Your task to perform on an android device: Go to Yahoo.com Image 0: 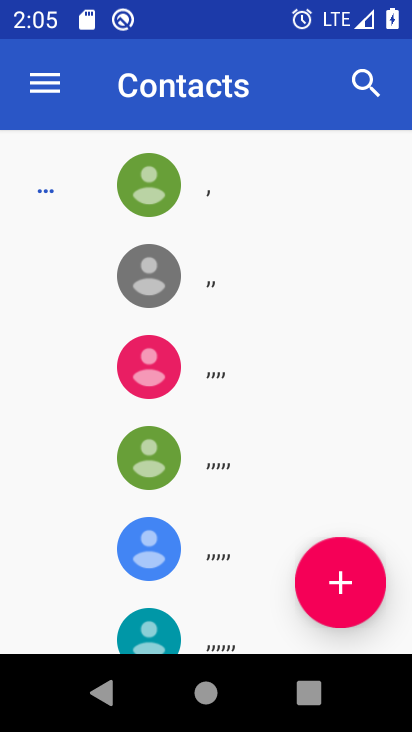
Step 0: press home button
Your task to perform on an android device: Go to Yahoo.com Image 1: 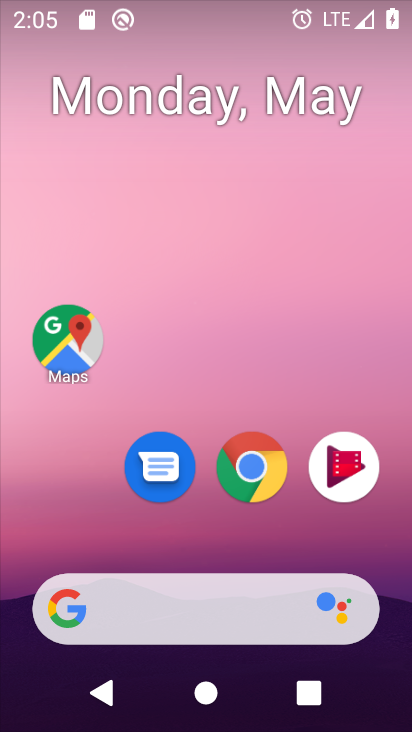
Step 1: drag from (218, 563) to (218, 256)
Your task to perform on an android device: Go to Yahoo.com Image 2: 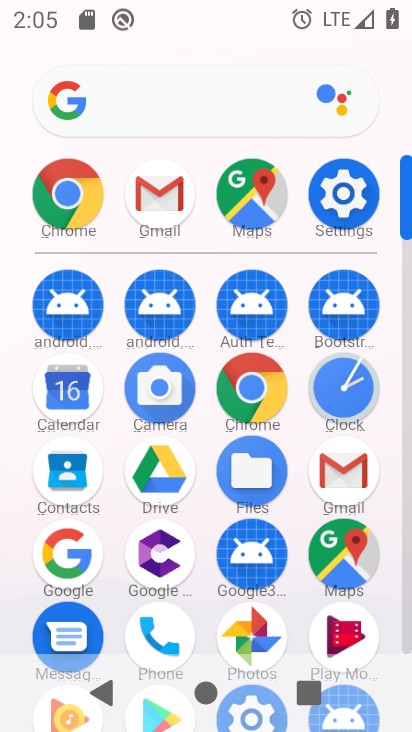
Step 2: click (66, 201)
Your task to perform on an android device: Go to Yahoo.com Image 3: 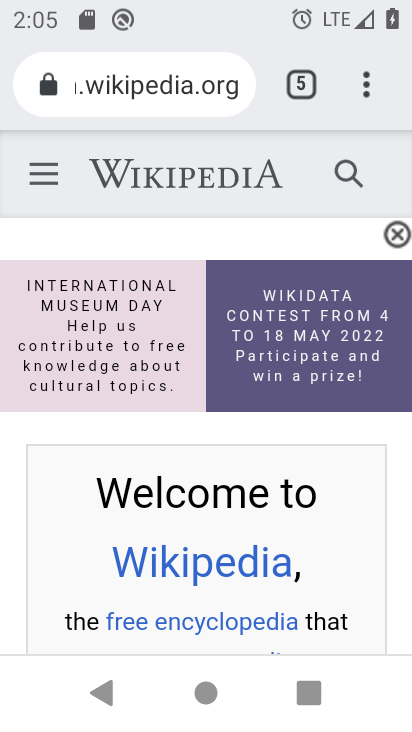
Step 3: click (350, 85)
Your task to perform on an android device: Go to Yahoo.com Image 4: 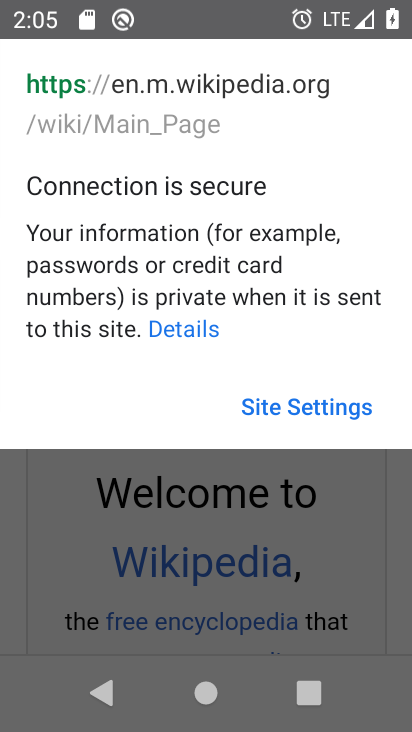
Step 4: press back button
Your task to perform on an android device: Go to Yahoo.com Image 5: 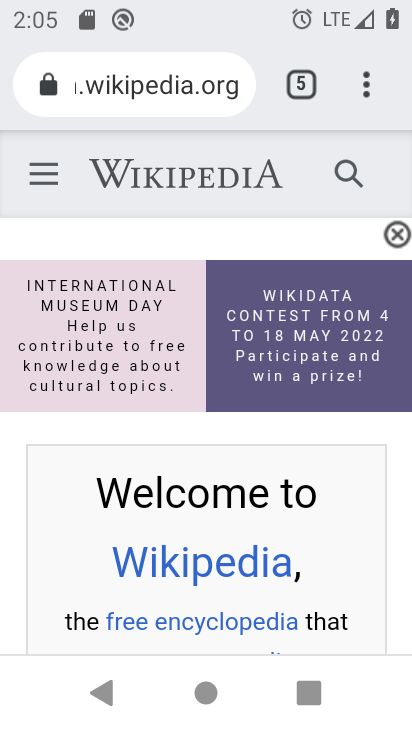
Step 5: click (371, 81)
Your task to perform on an android device: Go to Yahoo.com Image 6: 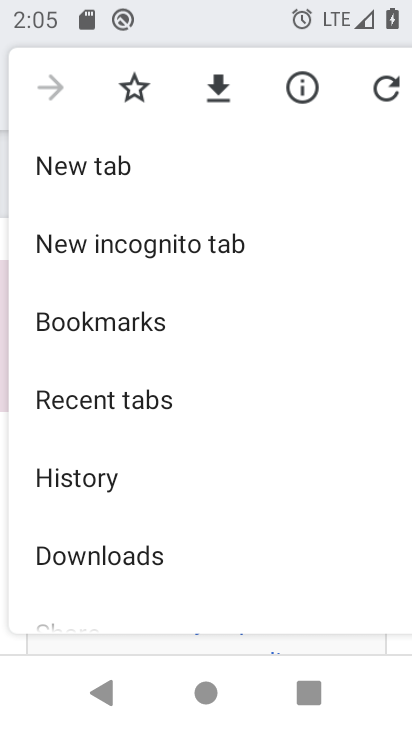
Step 6: click (120, 155)
Your task to perform on an android device: Go to Yahoo.com Image 7: 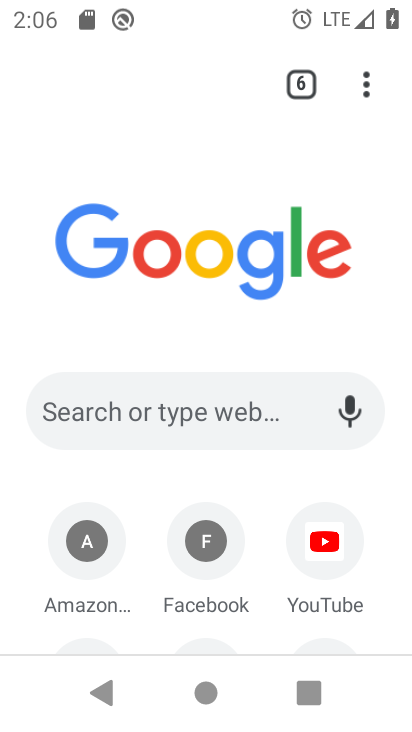
Step 7: drag from (228, 570) to (281, 208)
Your task to perform on an android device: Go to Yahoo.com Image 8: 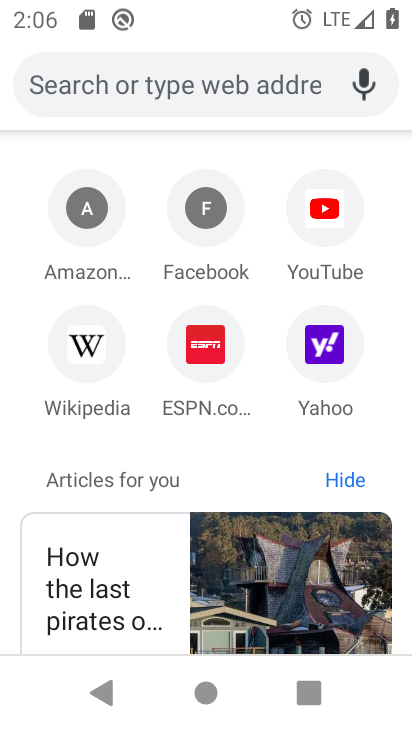
Step 8: click (306, 352)
Your task to perform on an android device: Go to Yahoo.com Image 9: 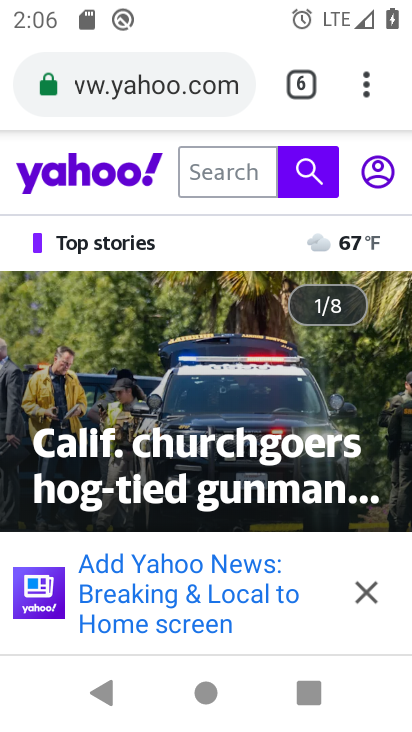
Step 9: task complete